Your task to perform on an android device: turn pop-ups on in chrome Image 0: 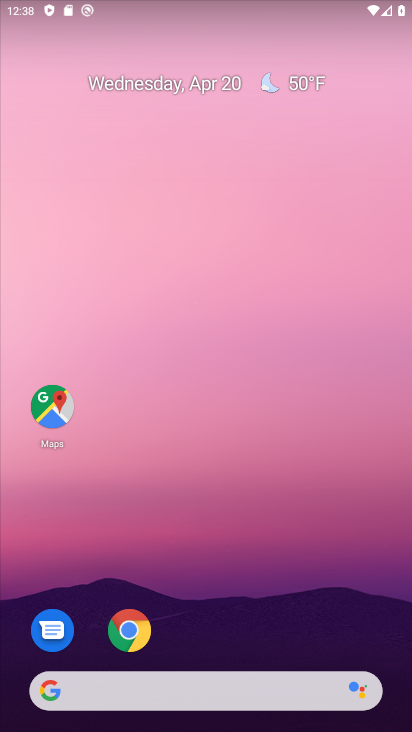
Step 0: click (128, 629)
Your task to perform on an android device: turn pop-ups on in chrome Image 1: 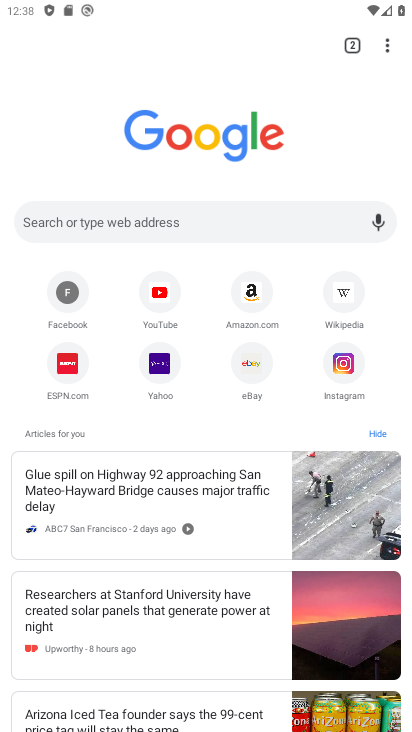
Step 1: click (383, 43)
Your task to perform on an android device: turn pop-ups on in chrome Image 2: 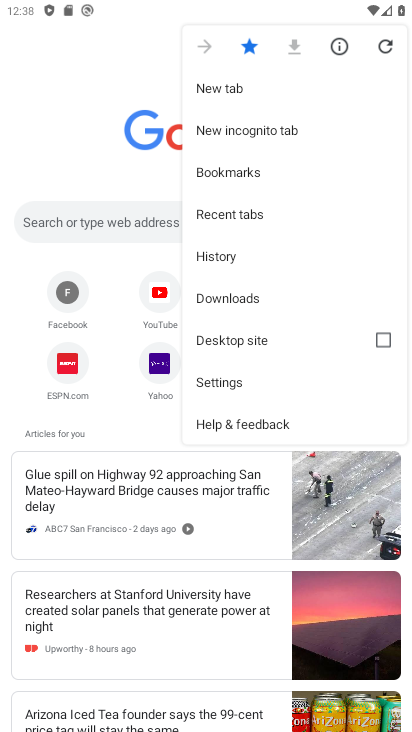
Step 2: click (248, 375)
Your task to perform on an android device: turn pop-ups on in chrome Image 3: 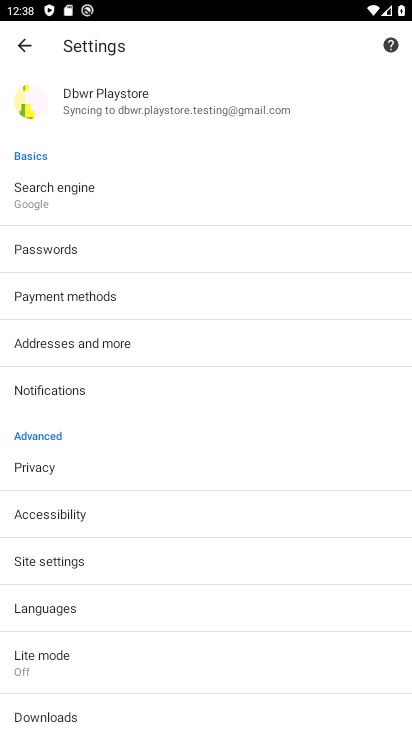
Step 3: click (65, 560)
Your task to perform on an android device: turn pop-ups on in chrome Image 4: 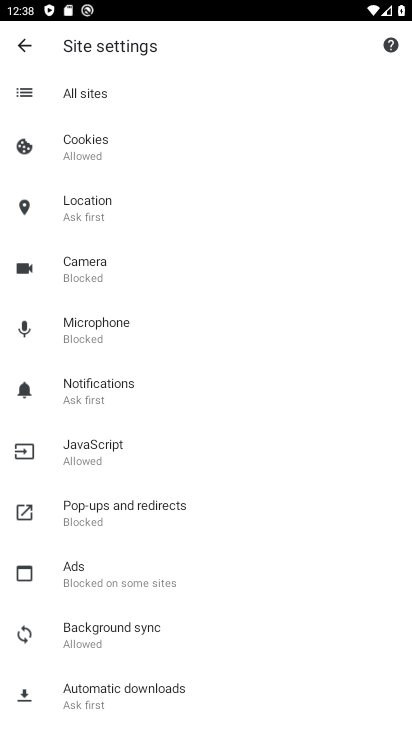
Step 4: click (120, 513)
Your task to perform on an android device: turn pop-ups on in chrome Image 5: 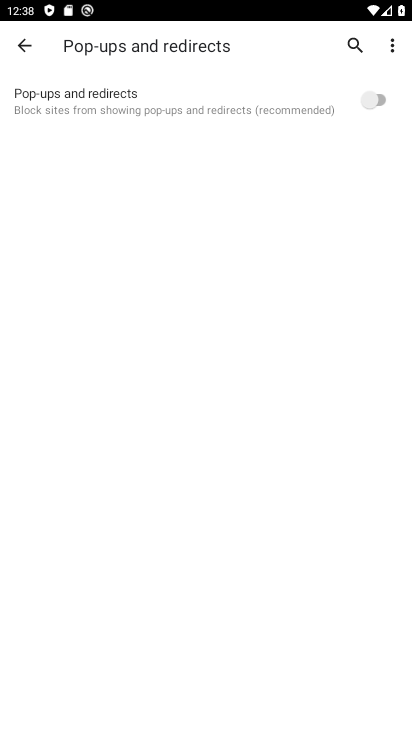
Step 5: click (371, 98)
Your task to perform on an android device: turn pop-ups on in chrome Image 6: 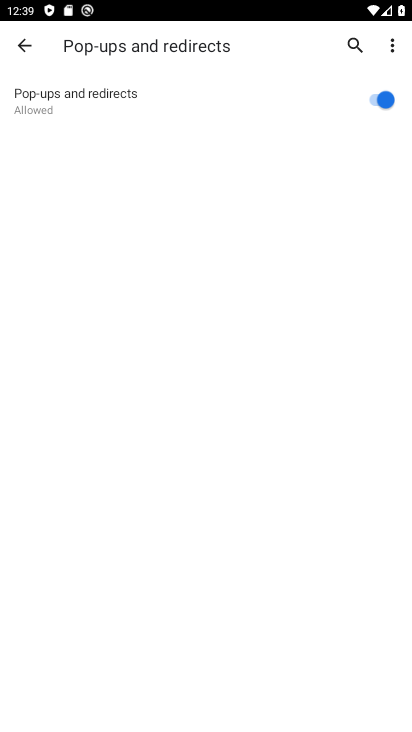
Step 6: task complete